Your task to perform on an android device: delete browsing data in the chrome app Image 0: 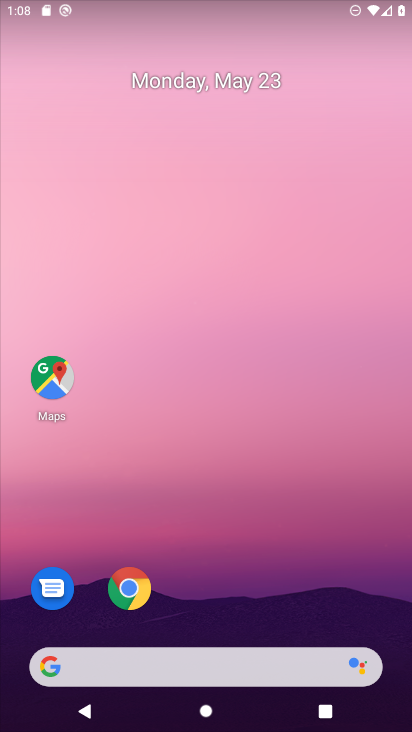
Step 0: click (128, 587)
Your task to perform on an android device: delete browsing data in the chrome app Image 1: 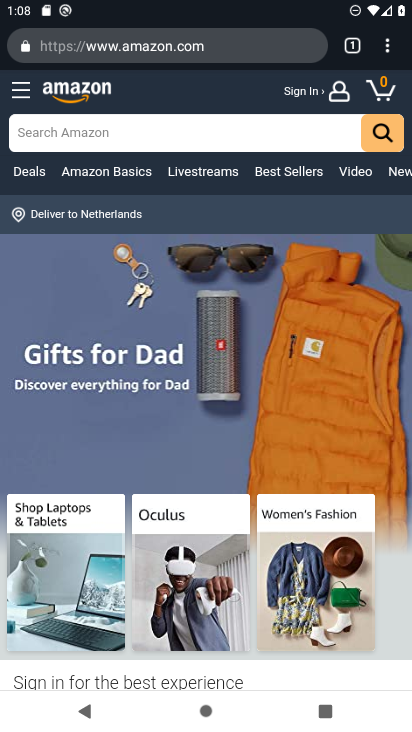
Step 1: click (386, 47)
Your task to perform on an android device: delete browsing data in the chrome app Image 2: 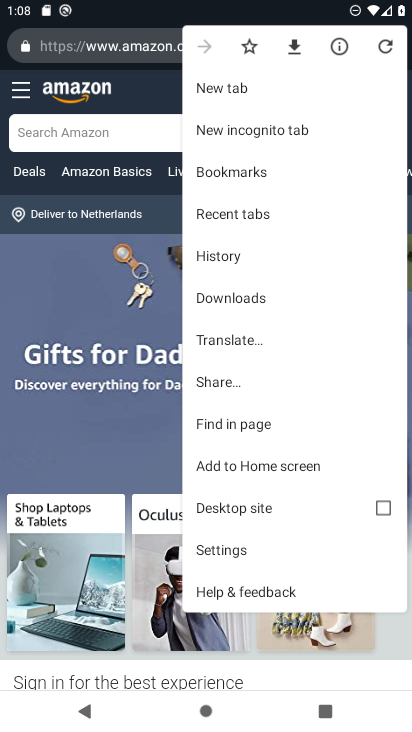
Step 2: click (223, 256)
Your task to perform on an android device: delete browsing data in the chrome app Image 3: 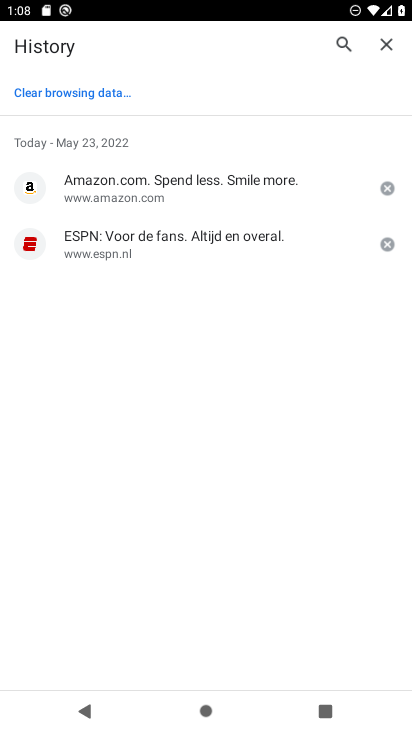
Step 3: click (223, 256)
Your task to perform on an android device: delete browsing data in the chrome app Image 4: 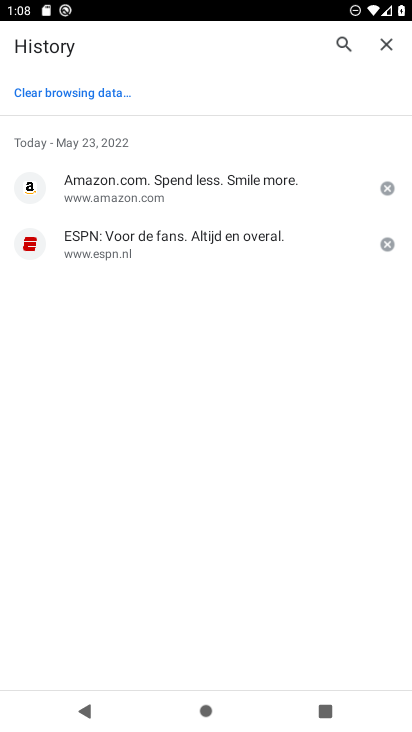
Step 4: click (91, 97)
Your task to perform on an android device: delete browsing data in the chrome app Image 5: 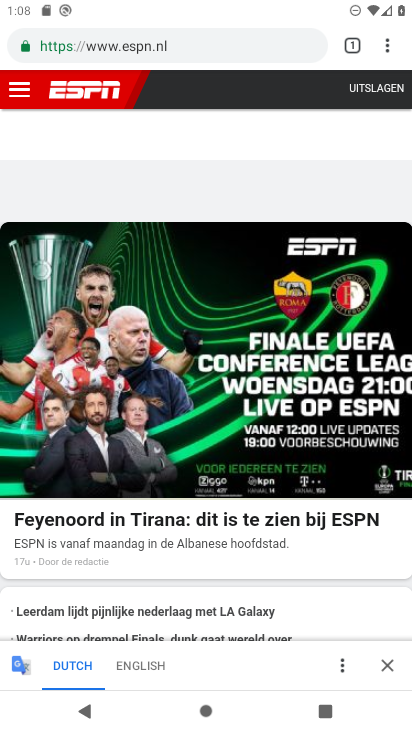
Step 5: click (390, 44)
Your task to perform on an android device: delete browsing data in the chrome app Image 6: 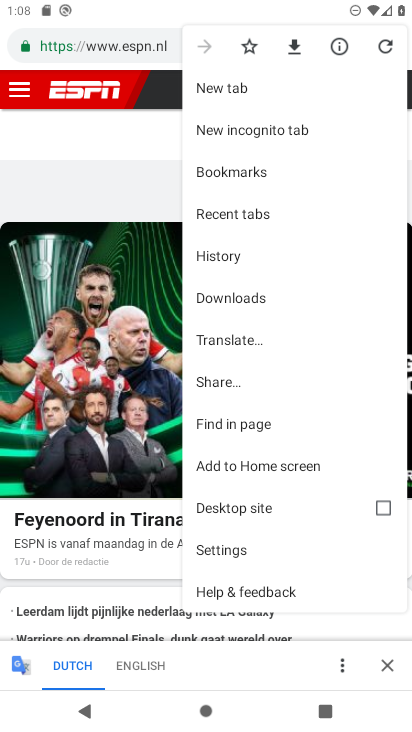
Step 6: click (217, 257)
Your task to perform on an android device: delete browsing data in the chrome app Image 7: 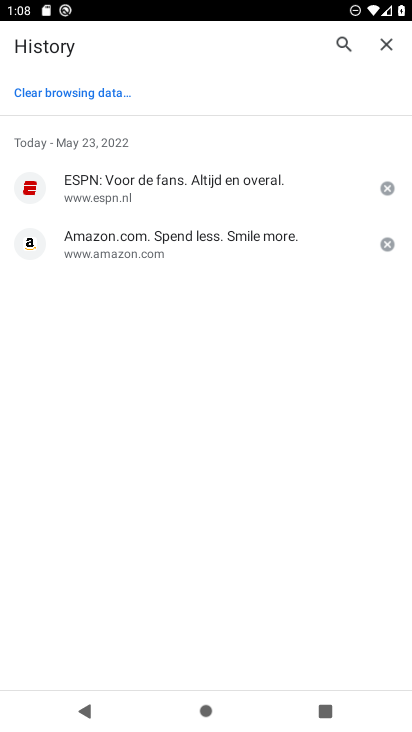
Step 7: click (74, 92)
Your task to perform on an android device: delete browsing data in the chrome app Image 8: 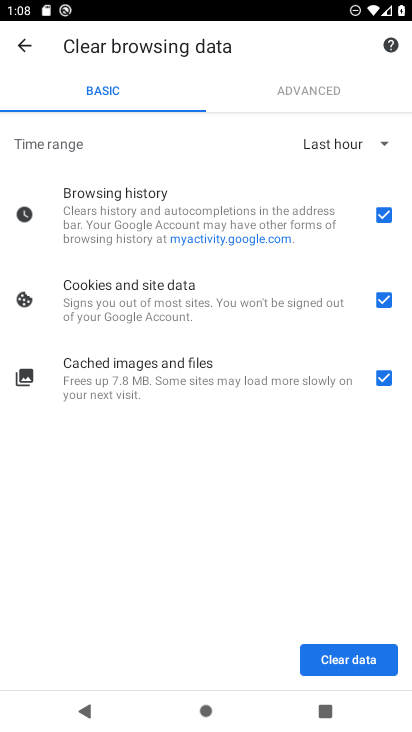
Step 8: click (366, 658)
Your task to perform on an android device: delete browsing data in the chrome app Image 9: 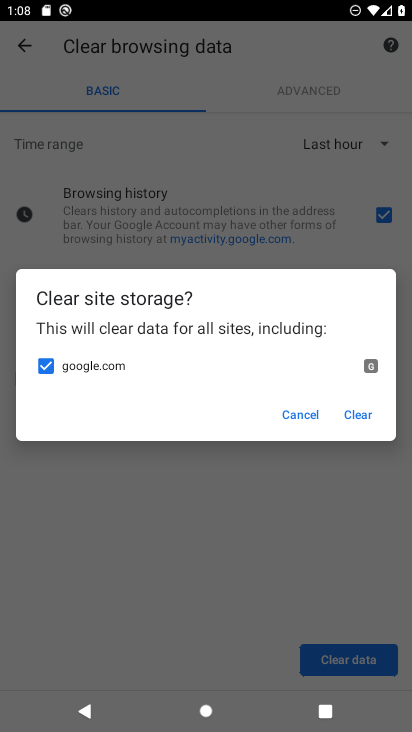
Step 9: click (357, 414)
Your task to perform on an android device: delete browsing data in the chrome app Image 10: 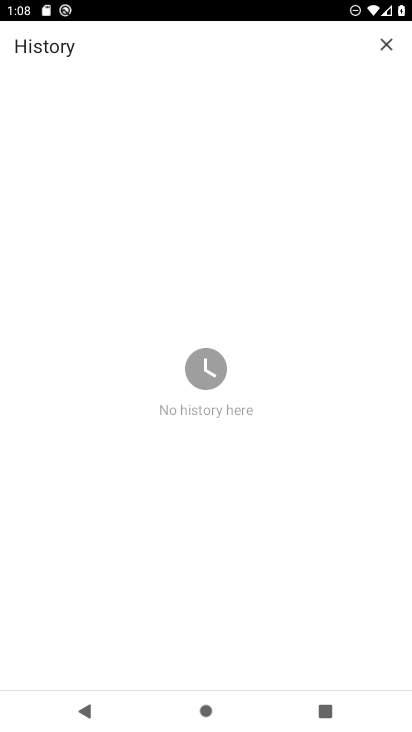
Step 10: task complete